Your task to perform on an android device: change alarm snooze length Image 0: 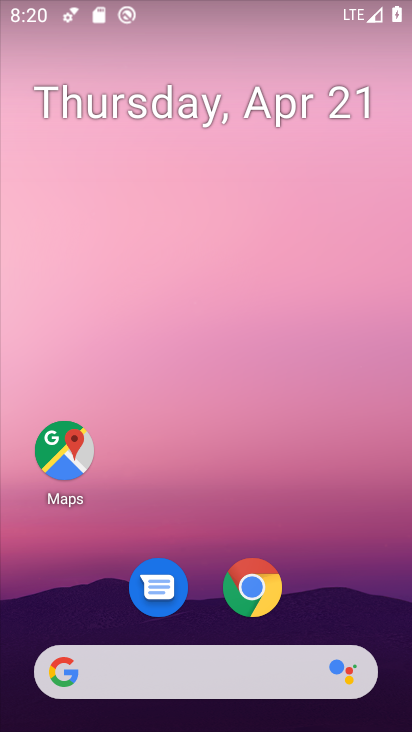
Step 0: drag from (381, 627) to (366, 226)
Your task to perform on an android device: change alarm snooze length Image 1: 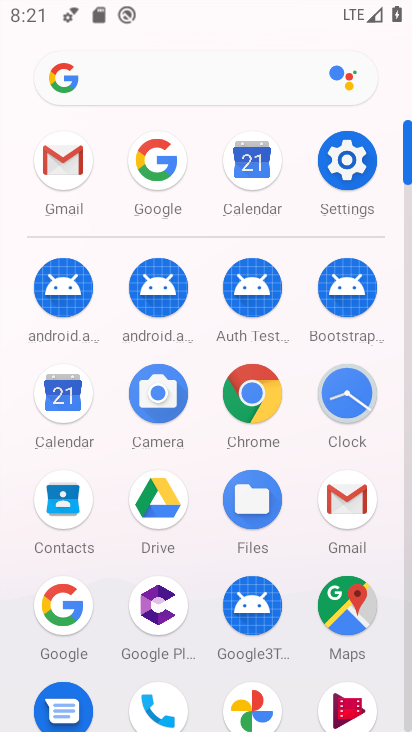
Step 1: click (338, 397)
Your task to perform on an android device: change alarm snooze length Image 2: 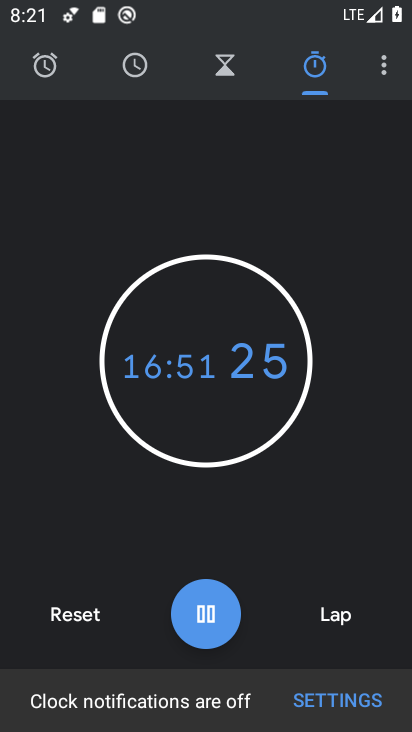
Step 2: click (140, 61)
Your task to perform on an android device: change alarm snooze length Image 3: 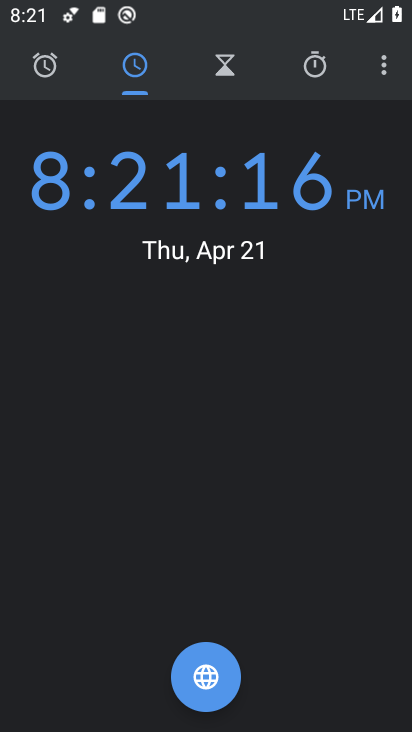
Step 3: click (385, 61)
Your task to perform on an android device: change alarm snooze length Image 4: 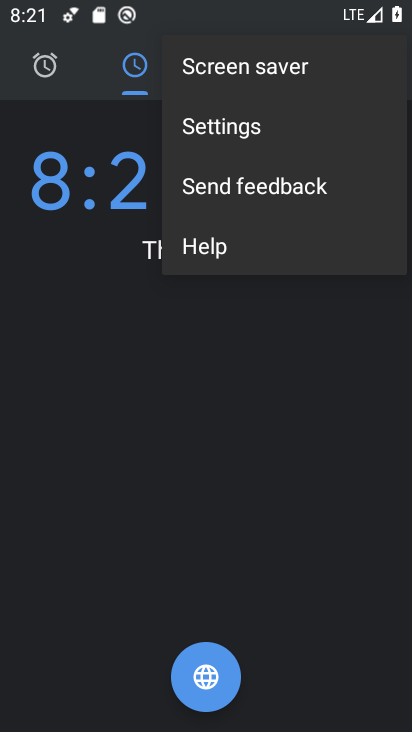
Step 4: click (219, 123)
Your task to perform on an android device: change alarm snooze length Image 5: 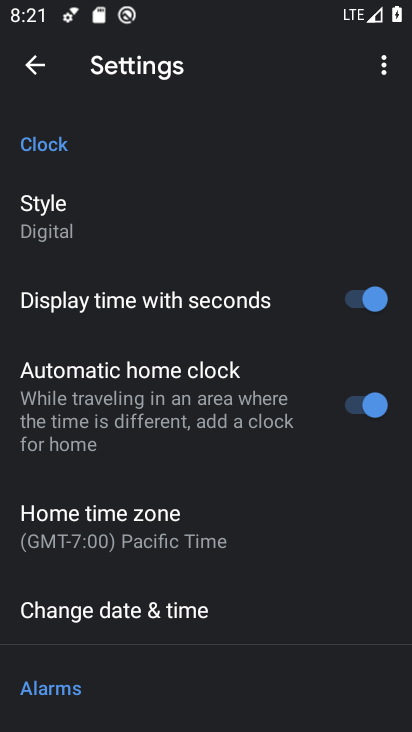
Step 5: drag from (264, 505) to (267, 331)
Your task to perform on an android device: change alarm snooze length Image 6: 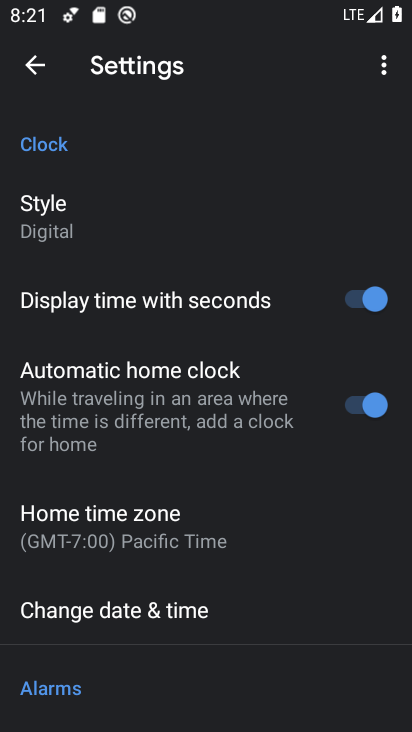
Step 6: drag from (283, 704) to (289, 284)
Your task to perform on an android device: change alarm snooze length Image 7: 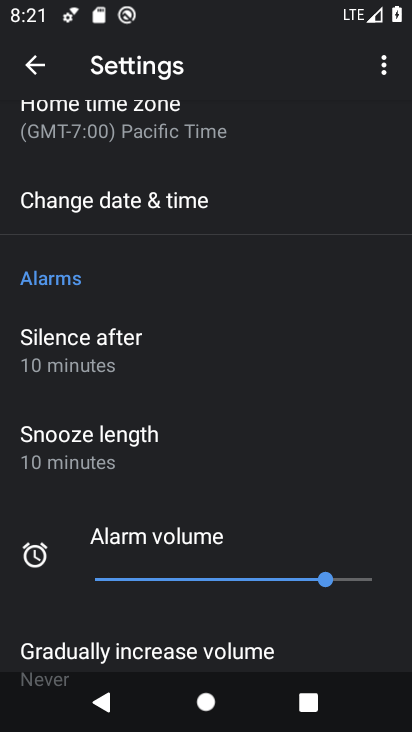
Step 7: click (112, 442)
Your task to perform on an android device: change alarm snooze length Image 8: 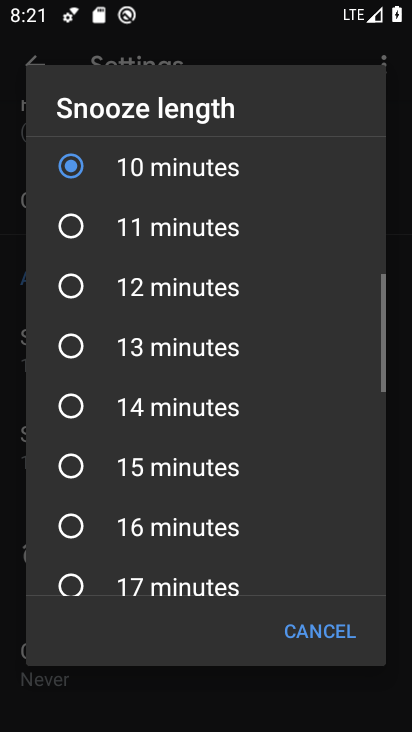
Step 8: click (79, 344)
Your task to perform on an android device: change alarm snooze length Image 9: 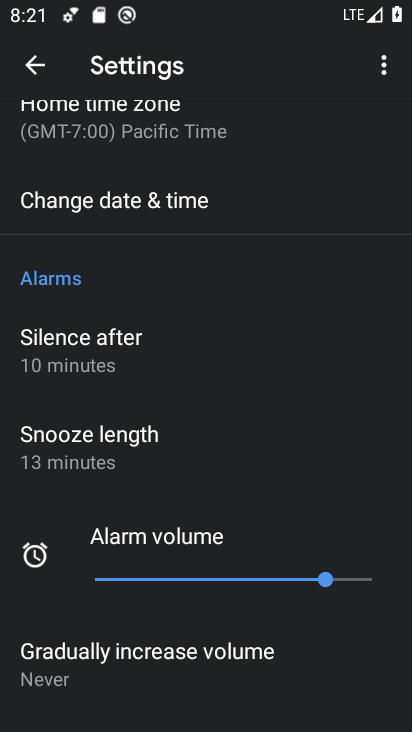
Step 9: task complete